Your task to perform on an android device: turn notification dots off Image 0: 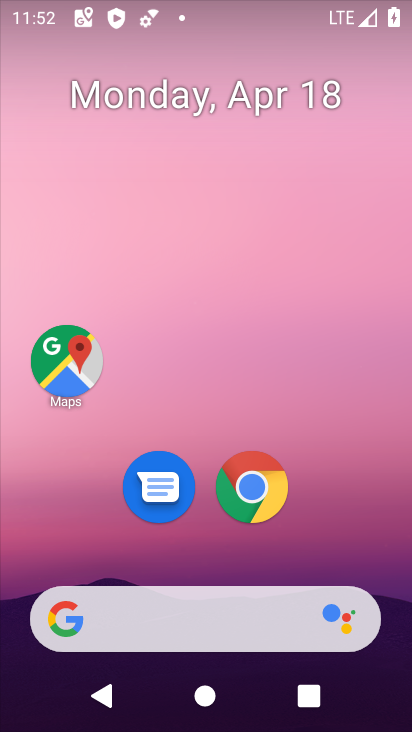
Step 0: drag from (218, 551) to (52, 6)
Your task to perform on an android device: turn notification dots off Image 1: 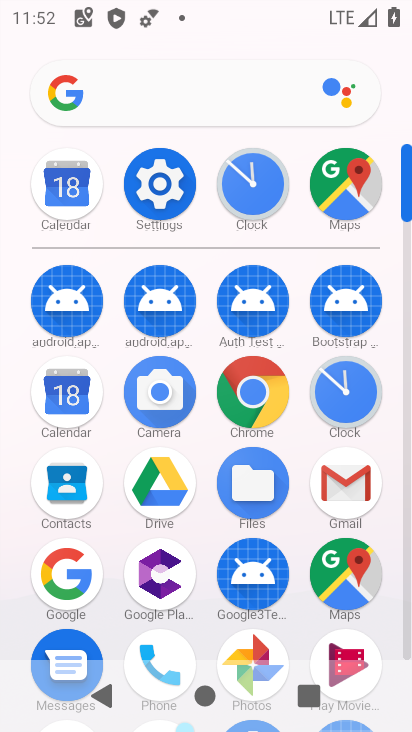
Step 1: click (162, 181)
Your task to perform on an android device: turn notification dots off Image 2: 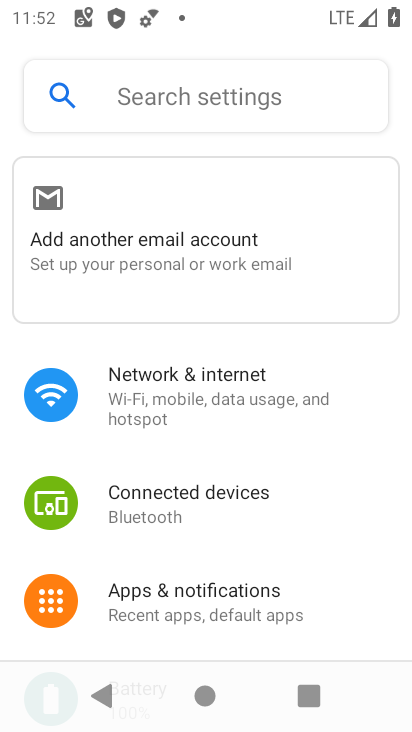
Step 2: click (199, 592)
Your task to perform on an android device: turn notification dots off Image 3: 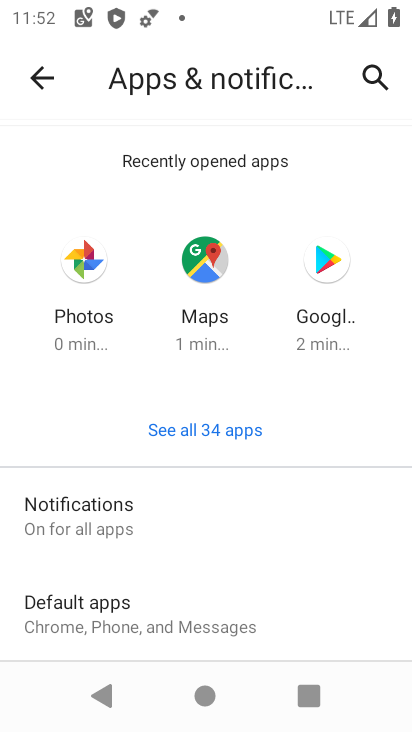
Step 3: click (87, 506)
Your task to perform on an android device: turn notification dots off Image 4: 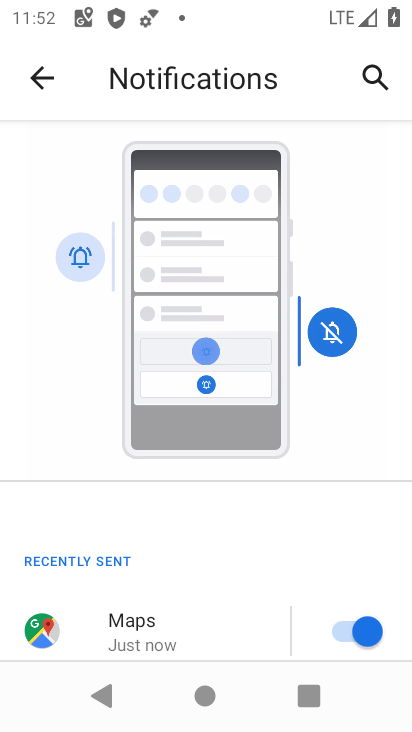
Step 4: drag from (200, 589) to (111, 102)
Your task to perform on an android device: turn notification dots off Image 5: 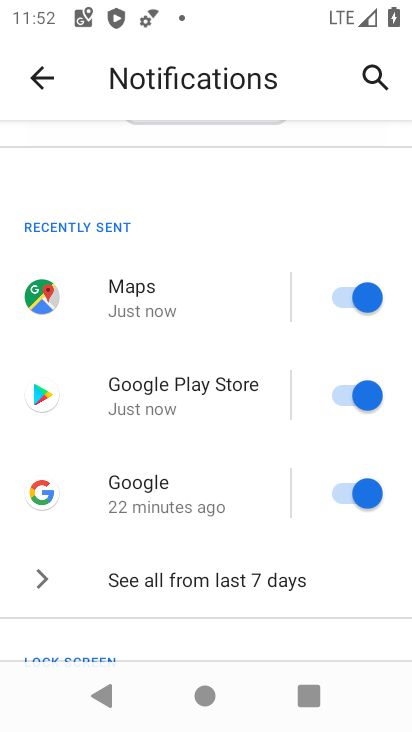
Step 5: drag from (178, 523) to (129, 111)
Your task to perform on an android device: turn notification dots off Image 6: 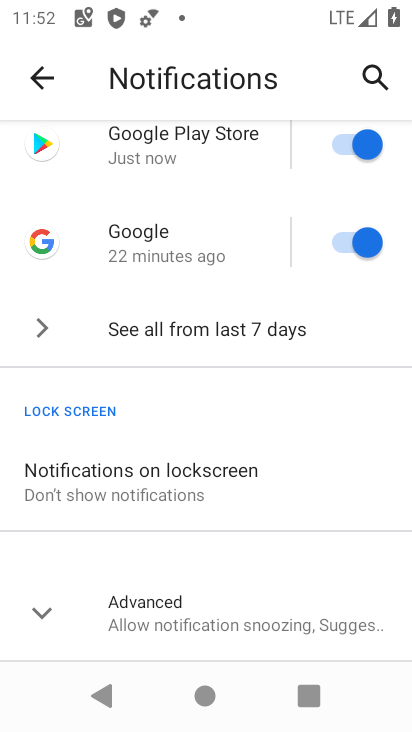
Step 6: click (113, 602)
Your task to perform on an android device: turn notification dots off Image 7: 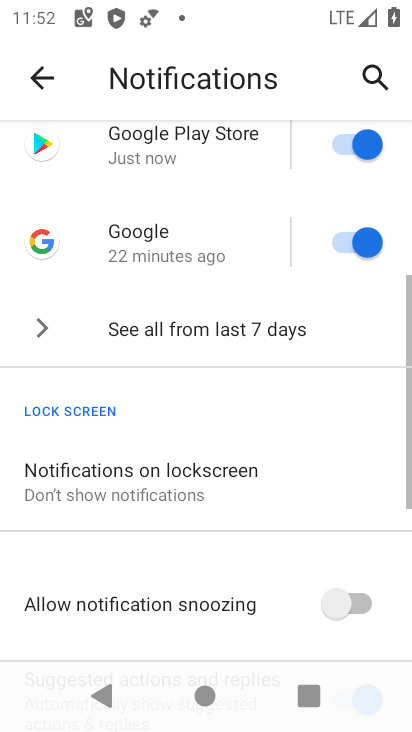
Step 7: drag from (167, 244) to (145, 76)
Your task to perform on an android device: turn notification dots off Image 8: 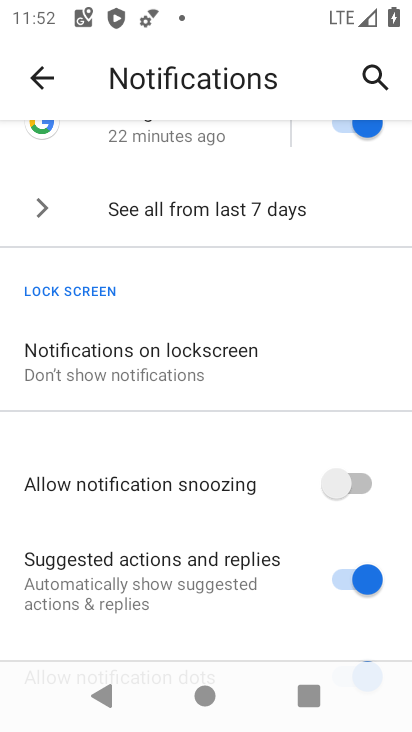
Step 8: drag from (200, 578) to (146, 215)
Your task to perform on an android device: turn notification dots off Image 9: 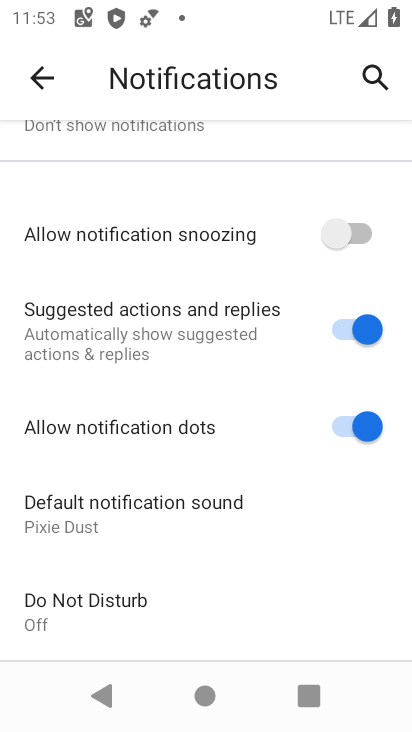
Step 9: click (359, 426)
Your task to perform on an android device: turn notification dots off Image 10: 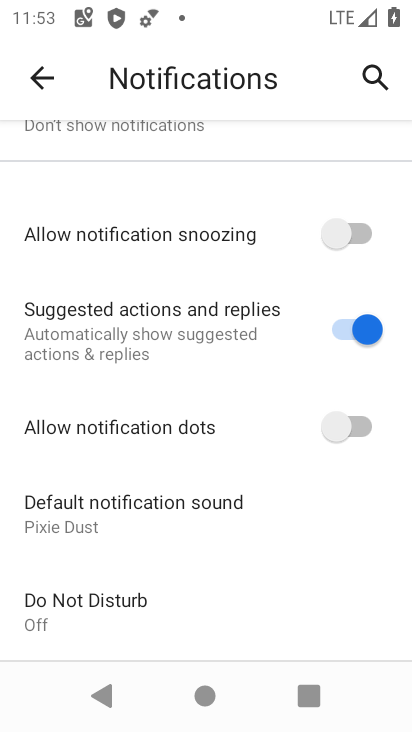
Step 10: task complete